Your task to perform on an android device: Clear the cart on bestbuy.com. Add logitech g933 to the cart on bestbuy.com Image 0: 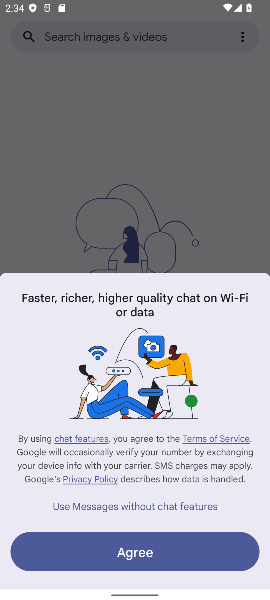
Step 0: press home button
Your task to perform on an android device: Clear the cart on bestbuy.com. Add logitech g933 to the cart on bestbuy.com Image 1: 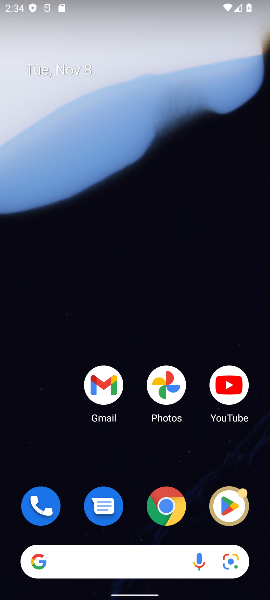
Step 1: drag from (134, 534) to (216, 36)
Your task to perform on an android device: Clear the cart on bestbuy.com. Add logitech g933 to the cart on bestbuy.com Image 2: 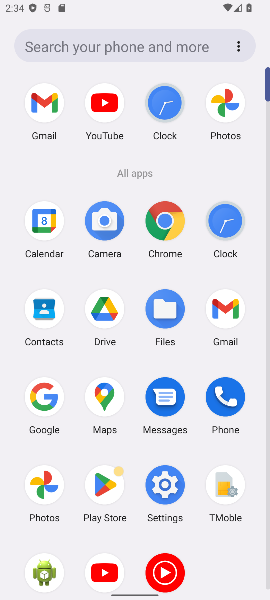
Step 2: click (50, 418)
Your task to perform on an android device: Clear the cart on bestbuy.com. Add logitech g933 to the cart on bestbuy.com Image 3: 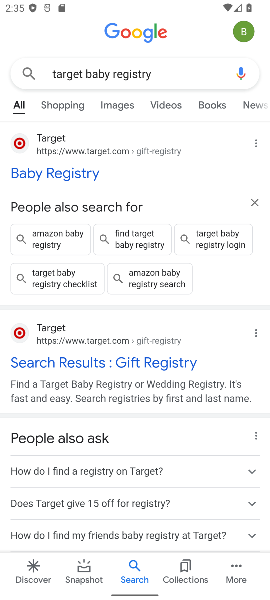
Step 3: click (173, 75)
Your task to perform on an android device: Clear the cart on bestbuy.com. Add logitech g933 to the cart on bestbuy.com Image 4: 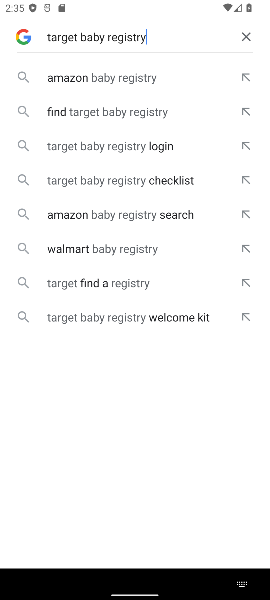
Step 4: click (245, 38)
Your task to perform on an android device: Clear the cart on bestbuy.com. Add logitech g933 to the cart on bestbuy.com Image 5: 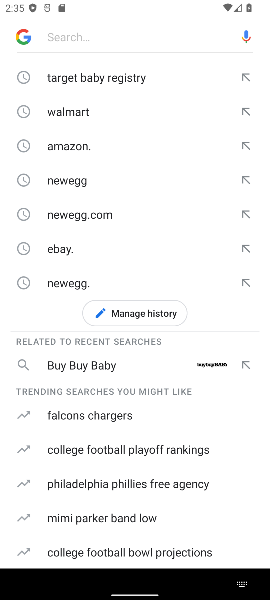
Step 5: type "bestbuy.com"
Your task to perform on an android device: Clear the cart on bestbuy.com. Add logitech g933 to the cart on bestbuy.com Image 6: 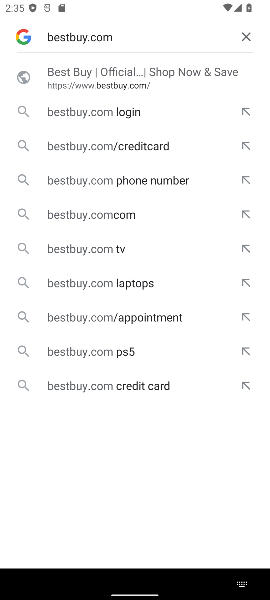
Step 6: click (172, 89)
Your task to perform on an android device: Clear the cart on bestbuy.com. Add logitech g933 to the cart on bestbuy.com Image 7: 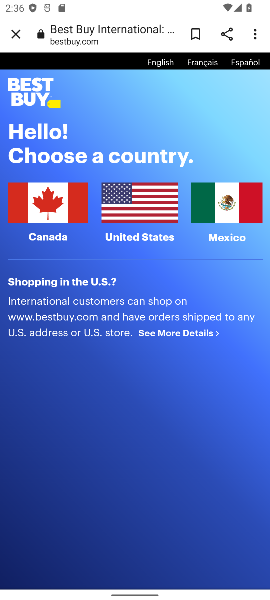
Step 7: click (157, 207)
Your task to perform on an android device: Clear the cart on bestbuy.com. Add logitech g933 to the cart on bestbuy.com Image 8: 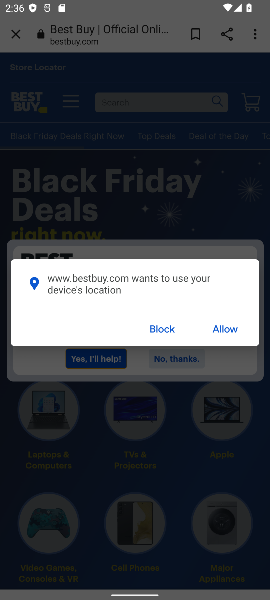
Step 8: click (193, 279)
Your task to perform on an android device: Clear the cart on bestbuy.com. Add logitech g933 to the cart on bestbuy.com Image 9: 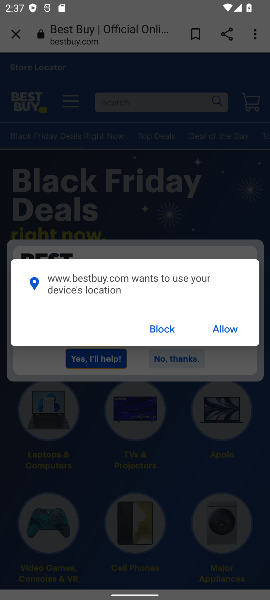
Step 9: click (168, 329)
Your task to perform on an android device: Clear the cart on bestbuy.com. Add logitech g933 to the cart on bestbuy.com Image 10: 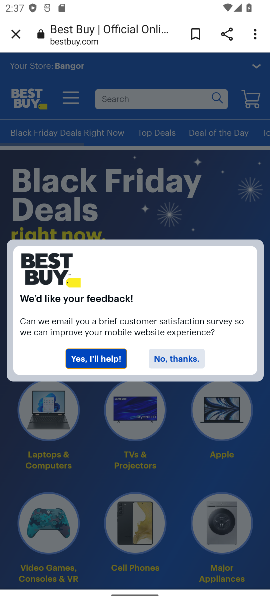
Step 10: click (161, 361)
Your task to perform on an android device: Clear the cart on bestbuy.com. Add logitech g933 to the cart on bestbuy.com Image 11: 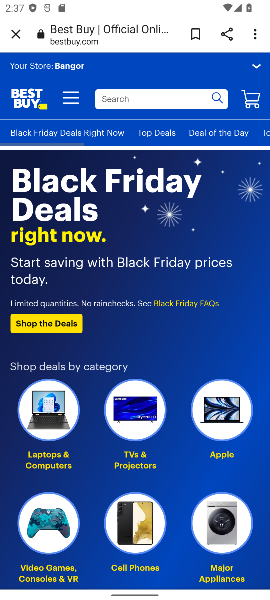
Step 11: click (171, 103)
Your task to perform on an android device: Clear the cart on bestbuy.com. Add logitech g933 to the cart on bestbuy.com Image 12: 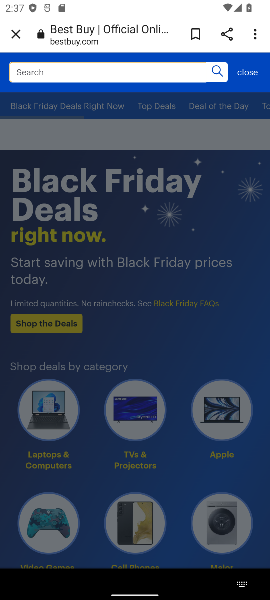
Step 12: type "logitech g933"
Your task to perform on an android device: Clear the cart on bestbuy.com. Add logitech g933 to the cart on bestbuy.com Image 13: 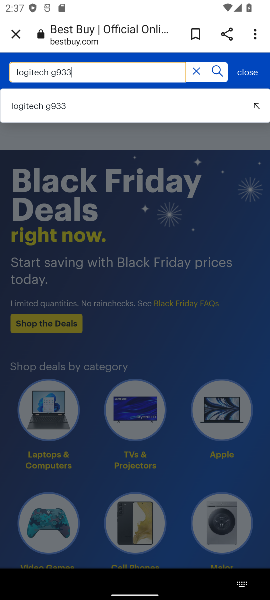
Step 13: click (221, 70)
Your task to perform on an android device: Clear the cart on bestbuy.com. Add logitech g933 to the cart on bestbuy.com Image 14: 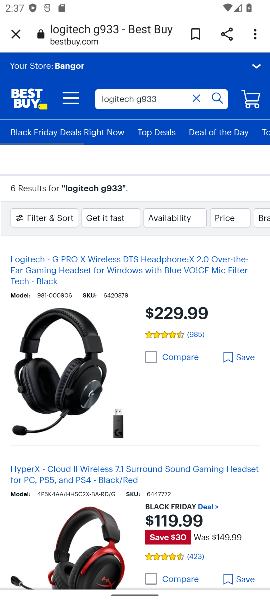
Step 14: click (84, 384)
Your task to perform on an android device: Clear the cart on bestbuy.com. Add logitech g933 to the cart on bestbuy.com Image 15: 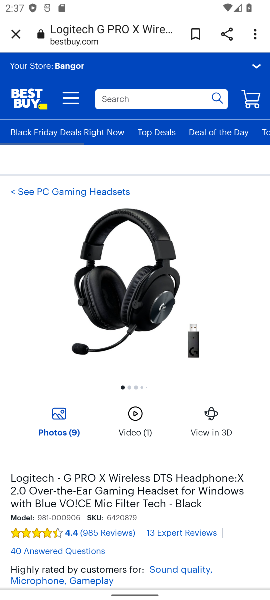
Step 15: drag from (138, 537) to (211, 28)
Your task to perform on an android device: Clear the cart on bestbuy.com. Add logitech g933 to the cart on bestbuy.com Image 16: 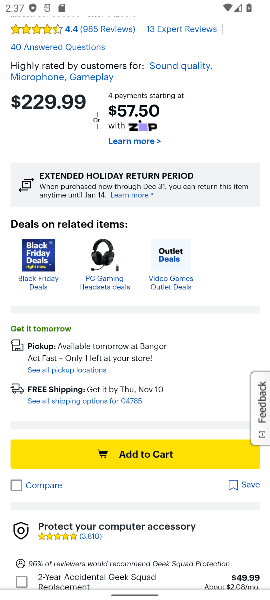
Step 16: click (121, 453)
Your task to perform on an android device: Clear the cart on bestbuy.com. Add logitech g933 to the cart on bestbuy.com Image 17: 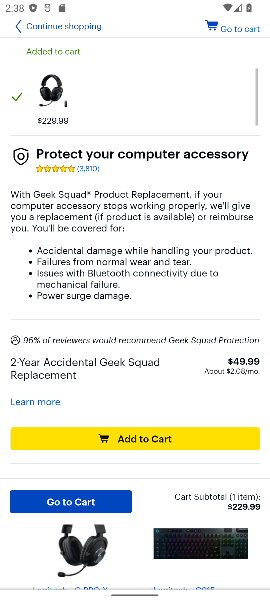
Step 17: task complete